Your task to perform on an android device: toggle improve location accuracy Image 0: 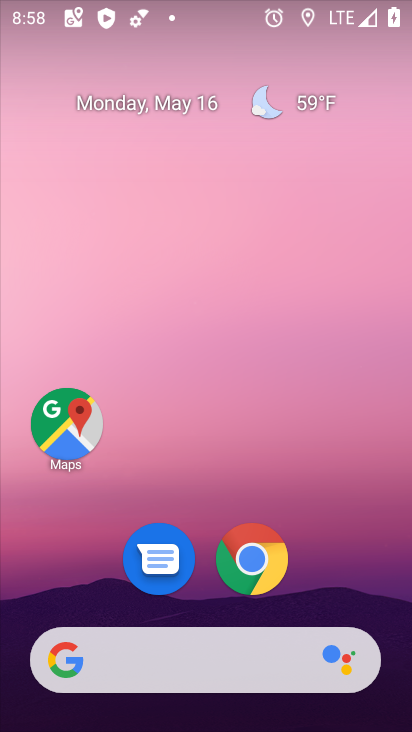
Step 0: drag from (393, 562) to (317, 5)
Your task to perform on an android device: toggle improve location accuracy Image 1: 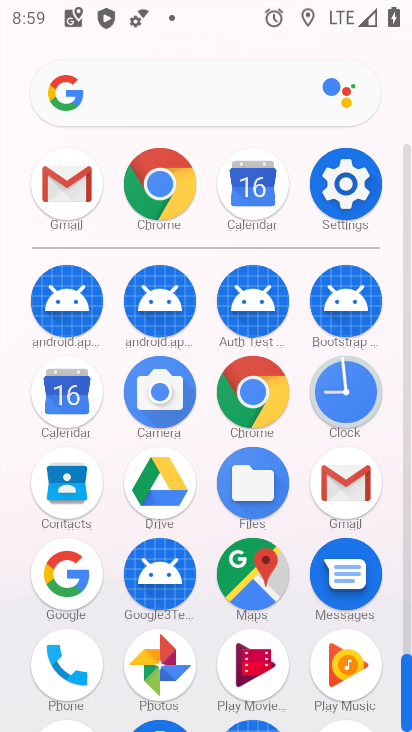
Step 1: click (362, 183)
Your task to perform on an android device: toggle improve location accuracy Image 2: 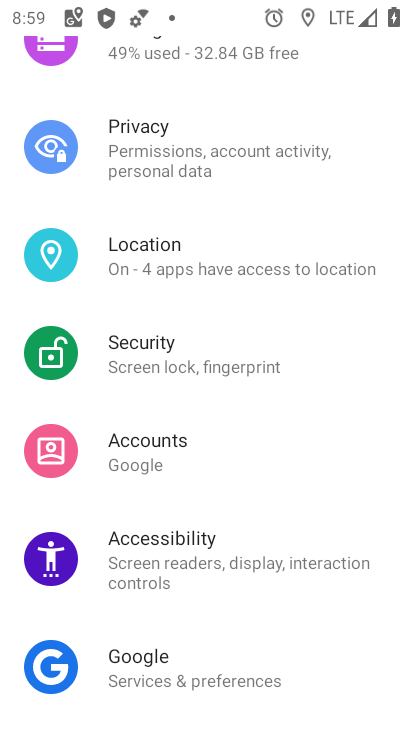
Step 2: drag from (361, 188) to (321, 482)
Your task to perform on an android device: toggle improve location accuracy Image 3: 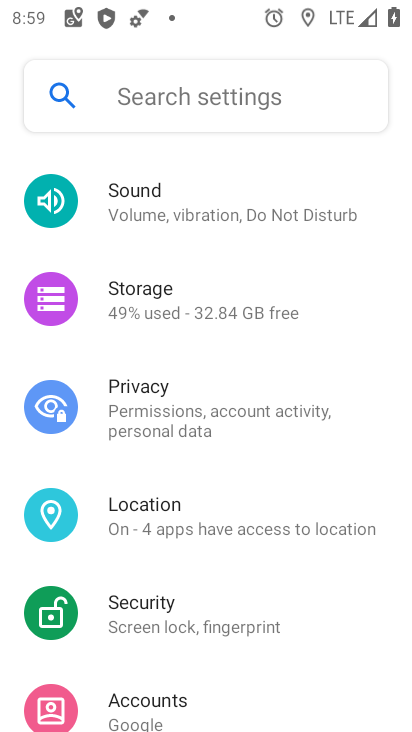
Step 3: click (283, 516)
Your task to perform on an android device: toggle improve location accuracy Image 4: 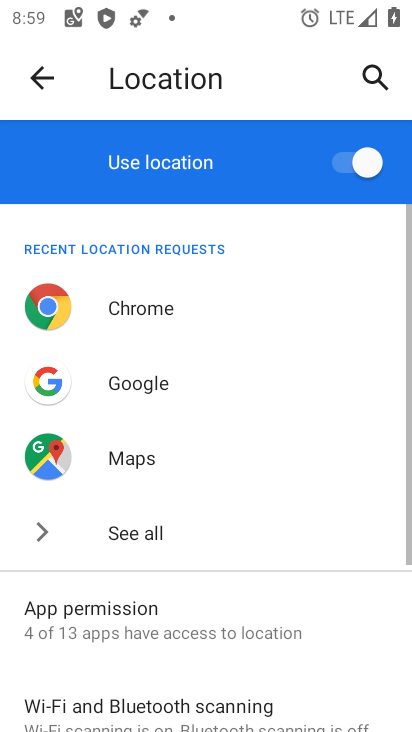
Step 4: drag from (345, 663) to (322, 265)
Your task to perform on an android device: toggle improve location accuracy Image 5: 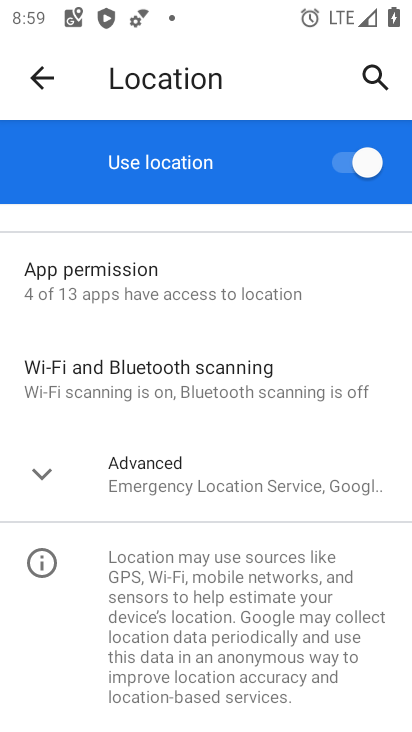
Step 5: click (302, 456)
Your task to perform on an android device: toggle improve location accuracy Image 6: 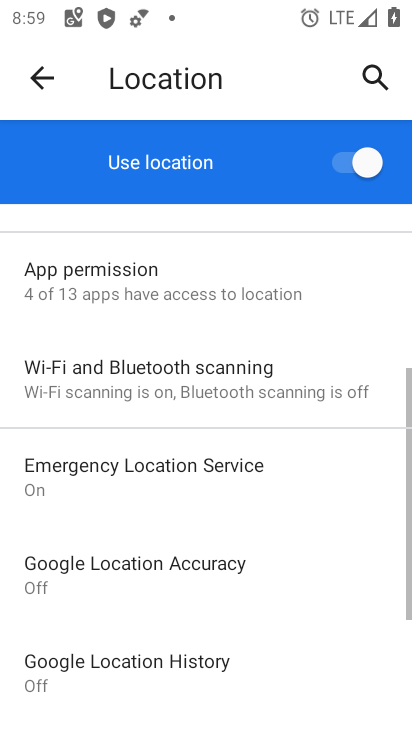
Step 6: drag from (316, 632) to (327, 384)
Your task to perform on an android device: toggle improve location accuracy Image 7: 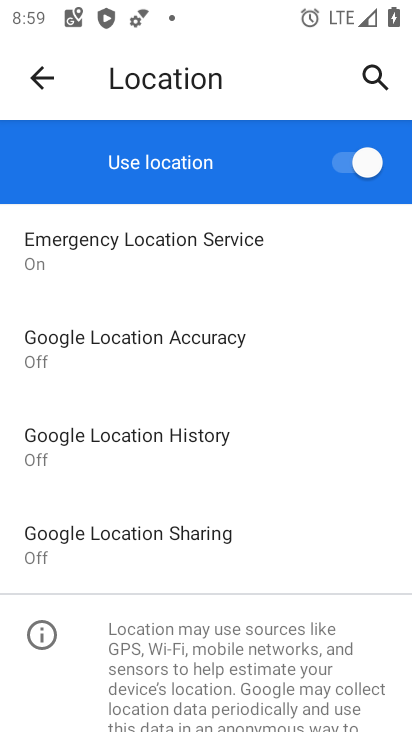
Step 7: click (148, 356)
Your task to perform on an android device: toggle improve location accuracy Image 8: 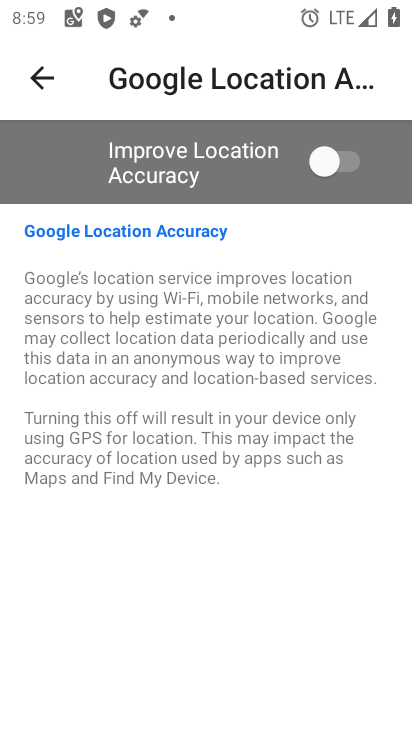
Step 8: click (339, 163)
Your task to perform on an android device: toggle improve location accuracy Image 9: 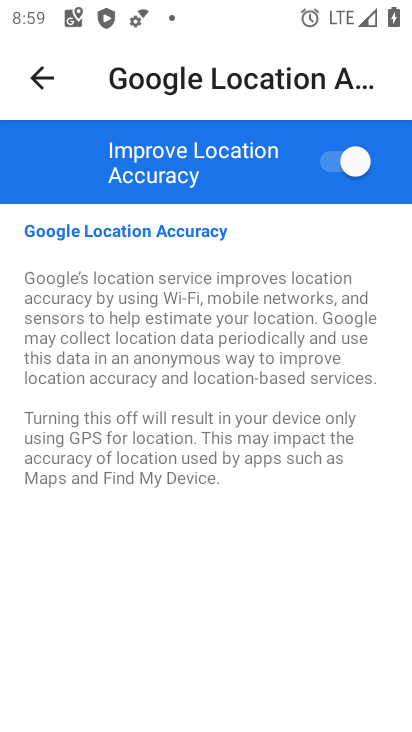
Step 9: task complete